Your task to perform on an android device: delete browsing data in the chrome app Image 0: 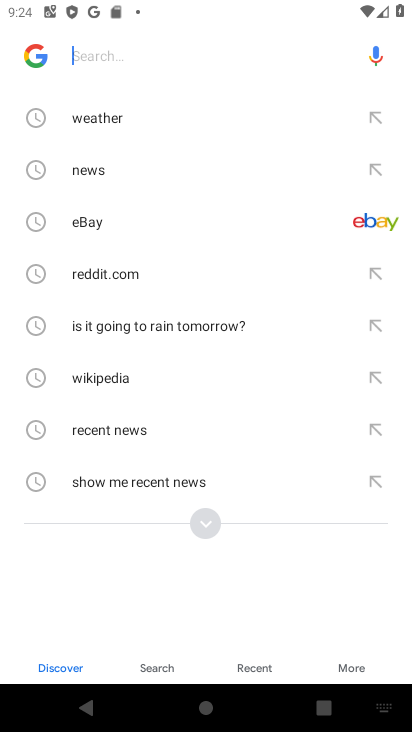
Step 0: press home button
Your task to perform on an android device: delete browsing data in the chrome app Image 1: 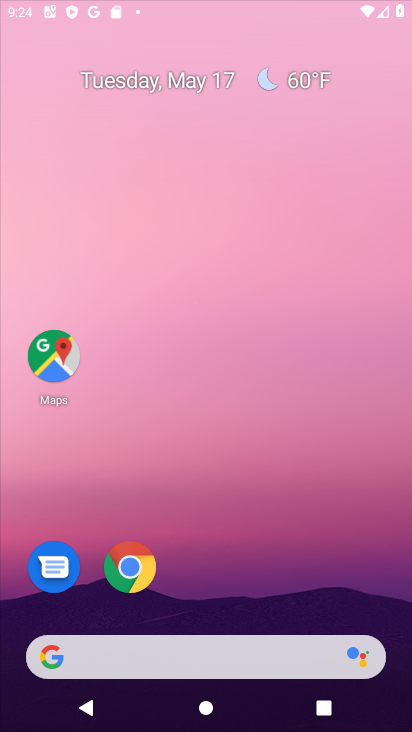
Step 1: drag from (372, 615) to (260, 80)
Your task to perform on an android device: delete browsing data in the chrome app Image 2: 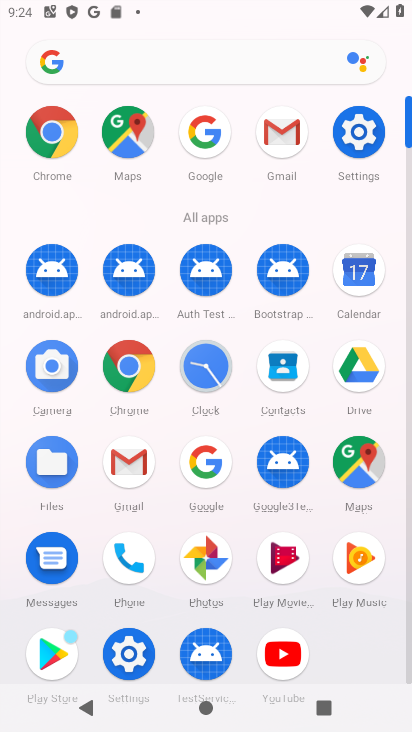
Step 2: click (50, 141)
Your task to perform on an android device: delete browsing data in the chrome app Image 3: 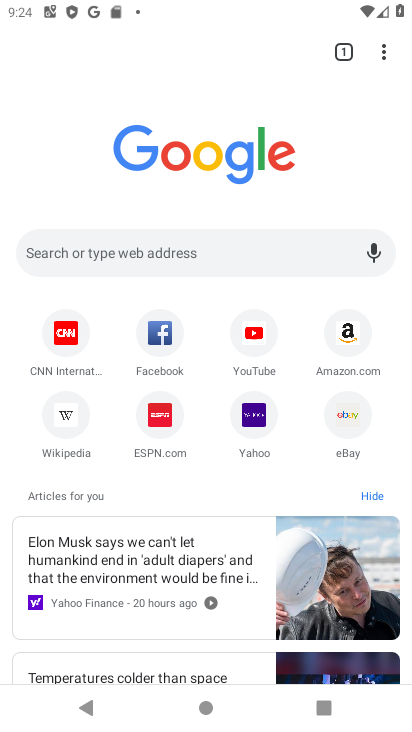
Step 3: click (382, 52)
Your task to perform on an android device: delete browsing data in the chrome app Image 4: 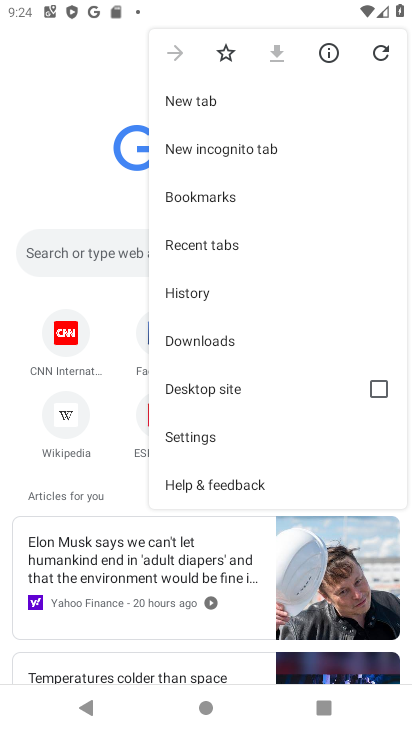
Step 4: click (209, 289)
Your task to perform on an android device: delete browsing data in the chrome app Image 5: 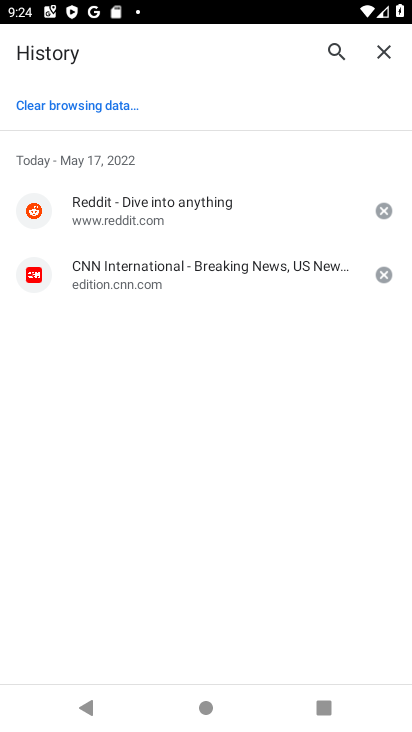
Step 5: click (80, 114)
Your task to perform on an android device: delete browsing data in the chrome app Image 6: 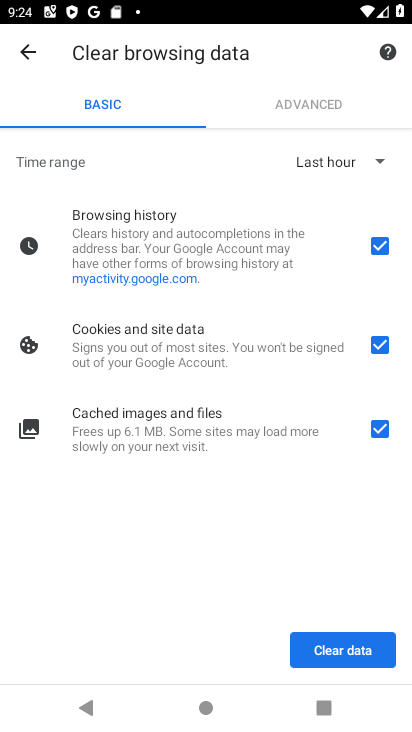
Step 6: click (343, 662)
Your task to perform on an android device: delete browsing data in the chrome app Image 7: 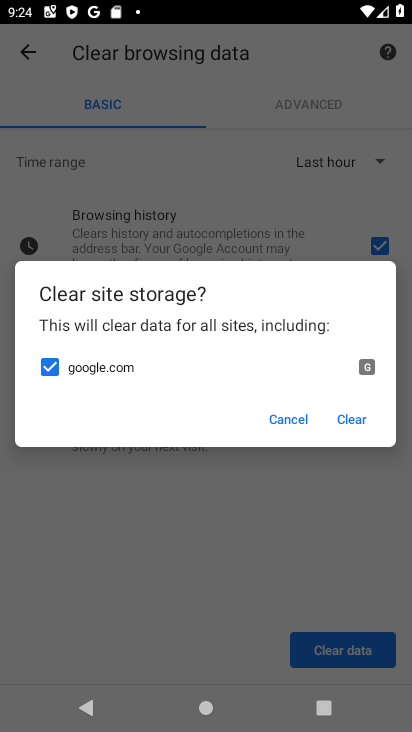
Step 7: click (357, 422)
Your task to perform on an android device: delete browsing data in the chrome app Image 8: 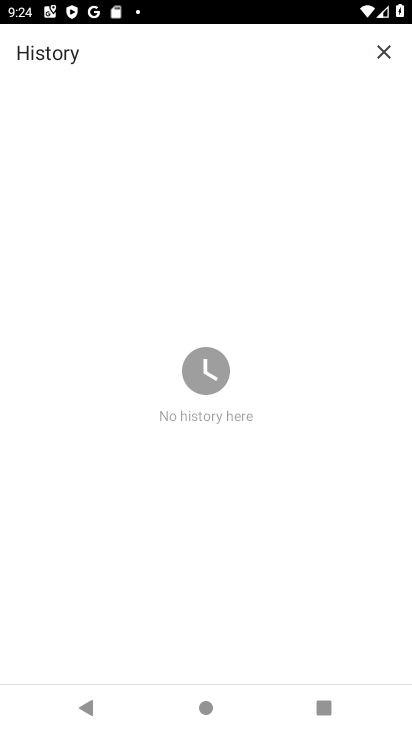
Step 8: task complete